Your task to perform on an android device: Open network settings Image 0: 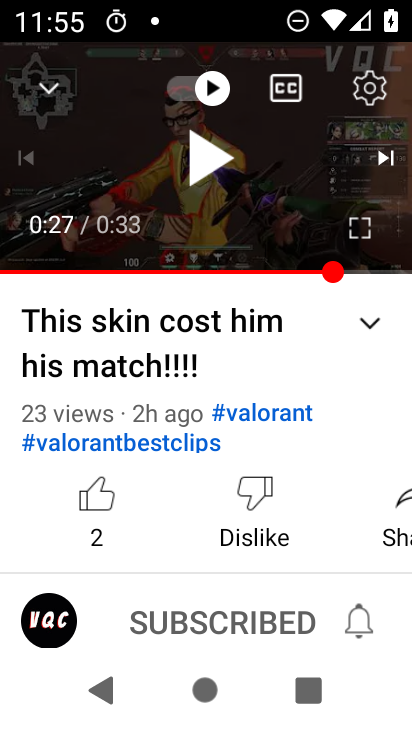
Step 0: press home button
Your task to perform on an android device: Open network settings Image 1: 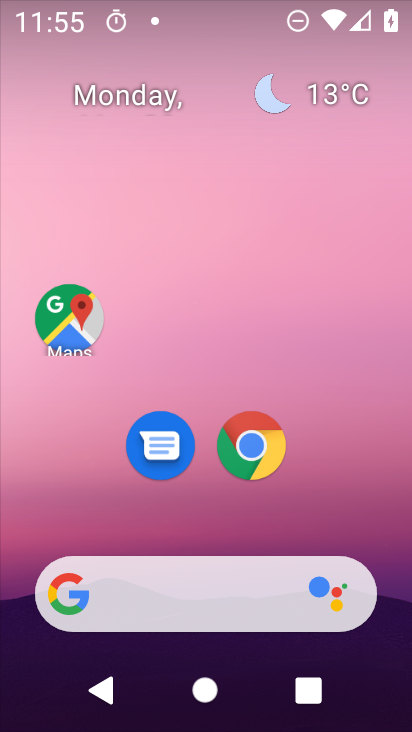
Step 1: drag from (189, 547) to (269, 0)
Your task to perform on an android device: Open network settings Image 2: 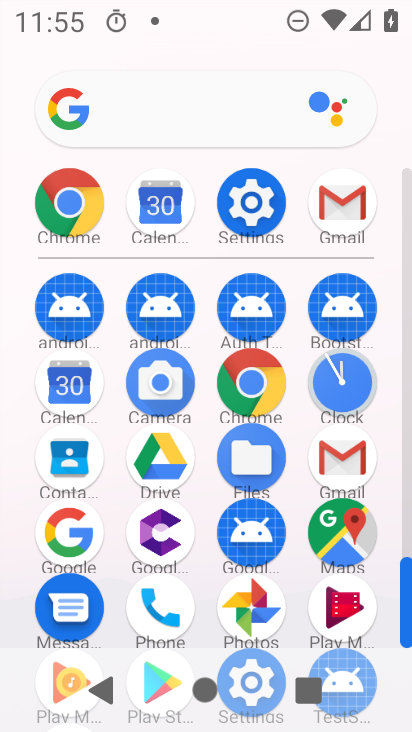
Step 2: click (269, 196)
Your task to perform on an android device: Open network settings Image 3: 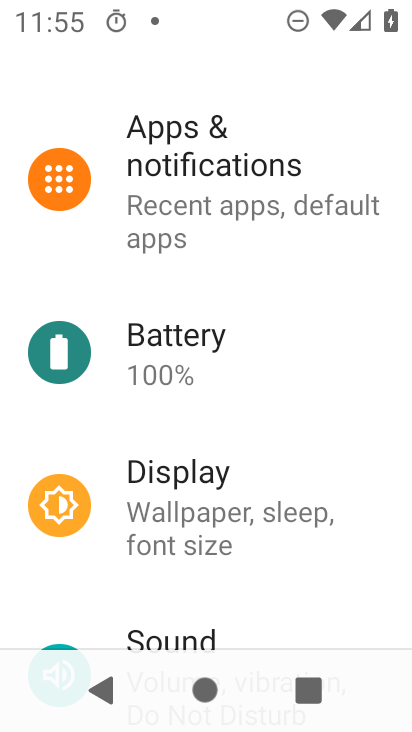
Step 3: drag from (196, 242) to (188, 682)
Your task to perform on an android device: Open network settings Image 4: 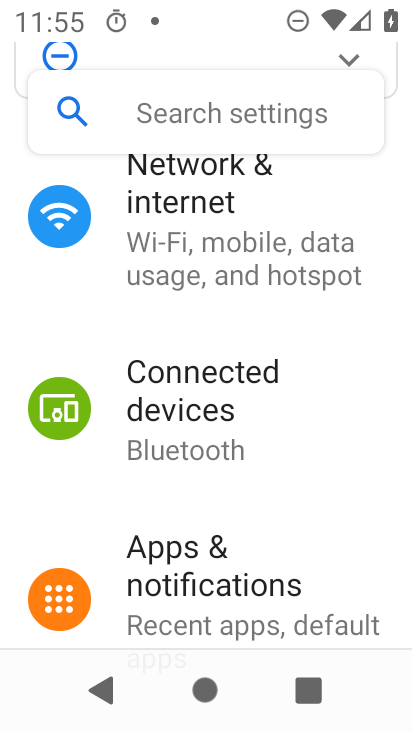
Step 4: drag from (241, 259) to (232, 648)
Your task to perform on an android device: Open network settings Image 5: 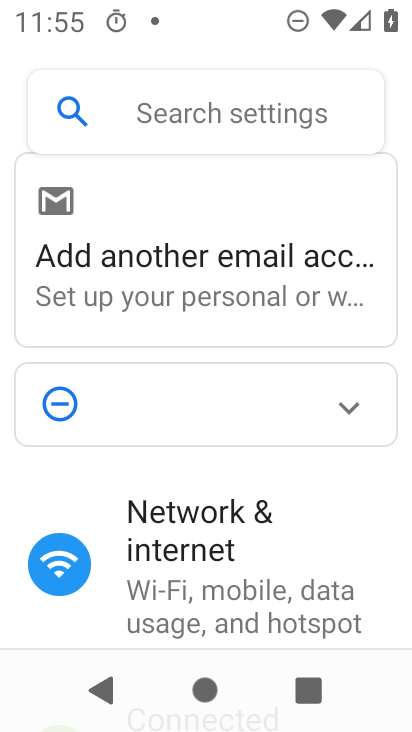
Step 5: click (202, 530)
Your task to perform on an android device: Open network settings Image 6: 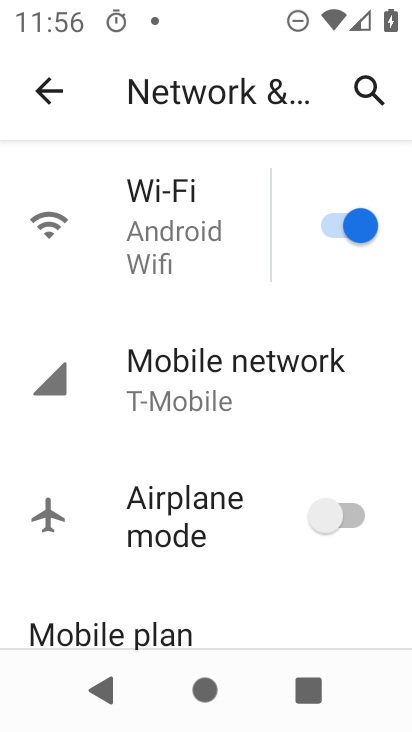
Step 6: task complete